Your task to perform on an android device: Go to Yahoo.com Image 0: 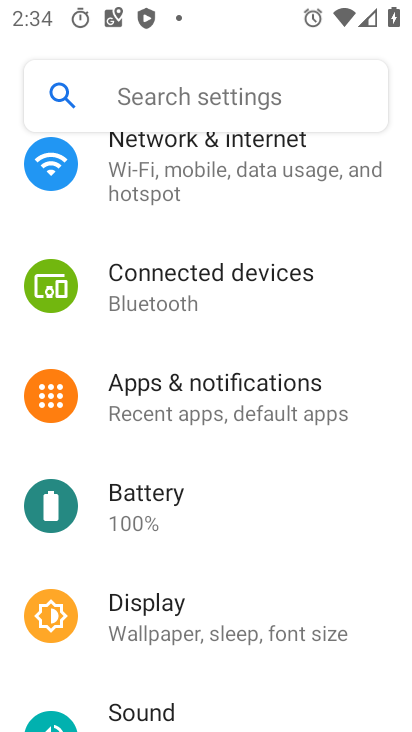
Step 0: drag from (205, 594) to (272, 167)
Your task to perform on an android device: Go to Yahoo.com Image 1: 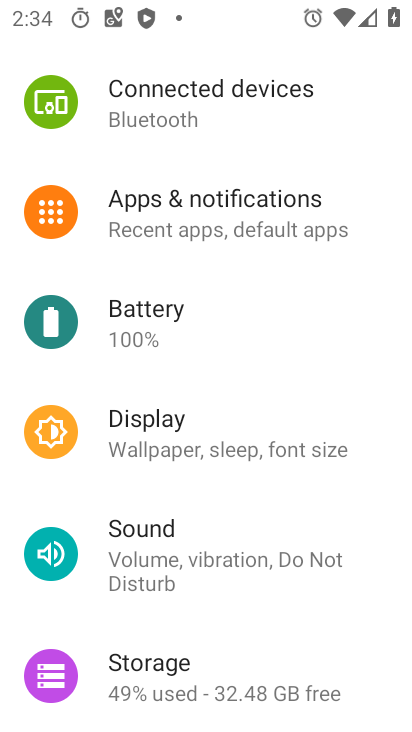
Step 1: press back button
Your task to perform on an android device: Go to Yahoo.com Image 2: 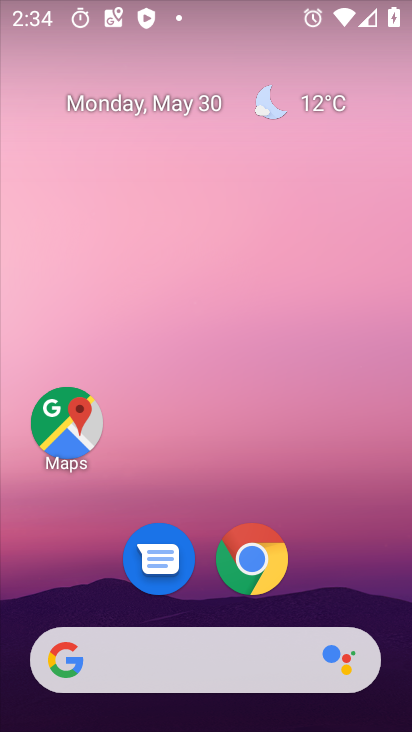
Step 2: click (236, 570)
Your task to perform on an android device: Go to Yahoo.com Image 3: 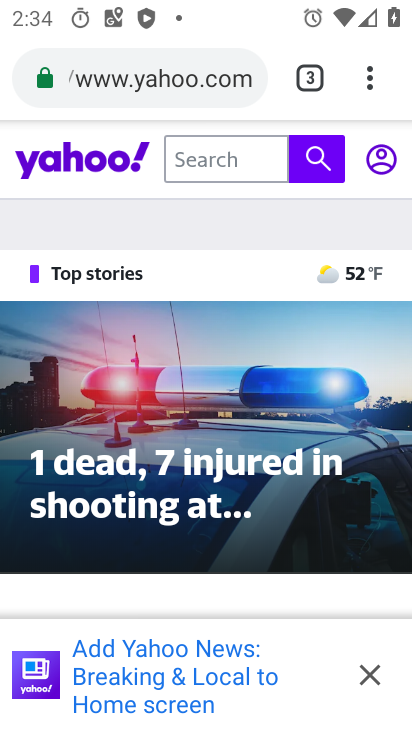
Step 3: task complete